Your task to perform on an android device: Find coffee shops on Maps Image 0: 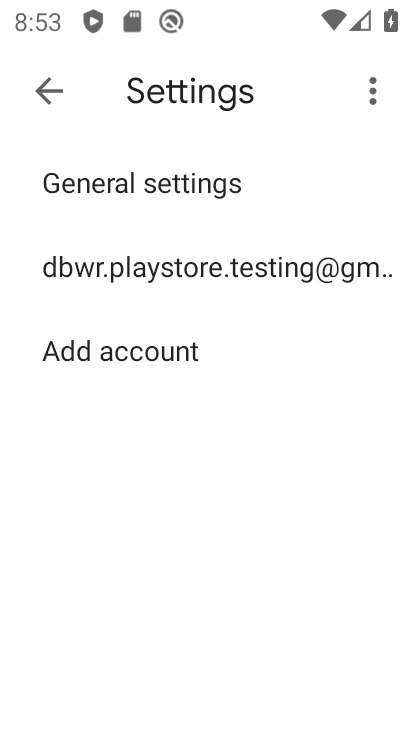
Step 0: press back button
Your task to perform on an android device: Find coffee shops on Maps Image 1: 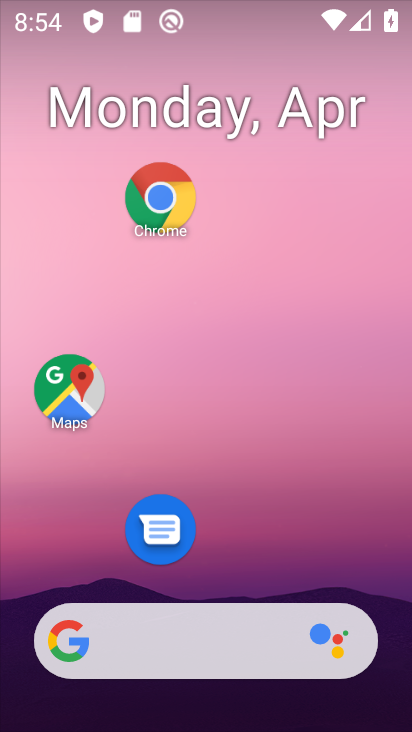
Step 1: click (59, 391)
Your task to perform on an android device: Find coffee shops on Maps Image 2: 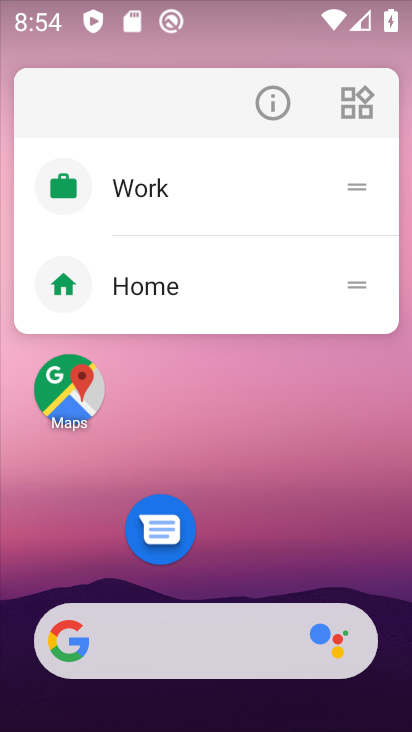
Step 2: click (67, 384)
Your task to perform on an android device: Find coffee shops on Maps Image 3: 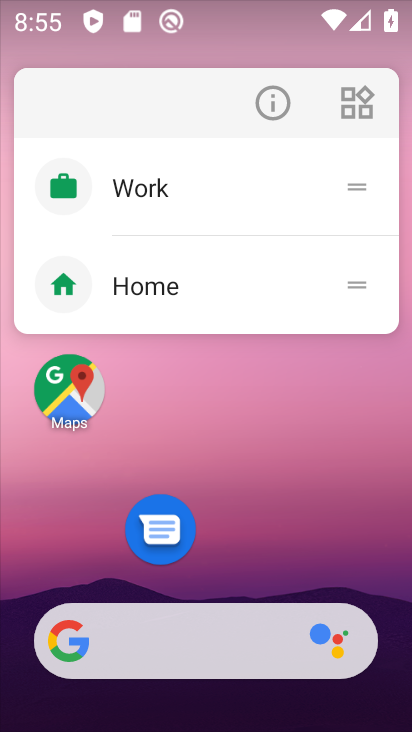
Step 3: click (60, 381)
Your task to perform on an android device: Find coffee shops on Maps Image 4: 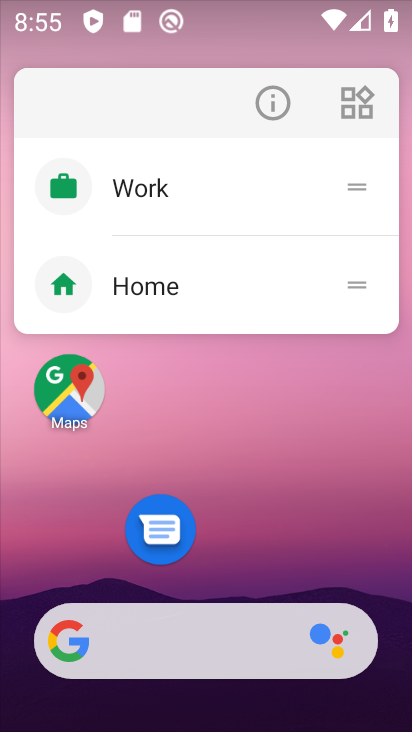
Step 4: click (62, 383)
Your task to perform on an android device: Find coffee shops on Maps Image 5: 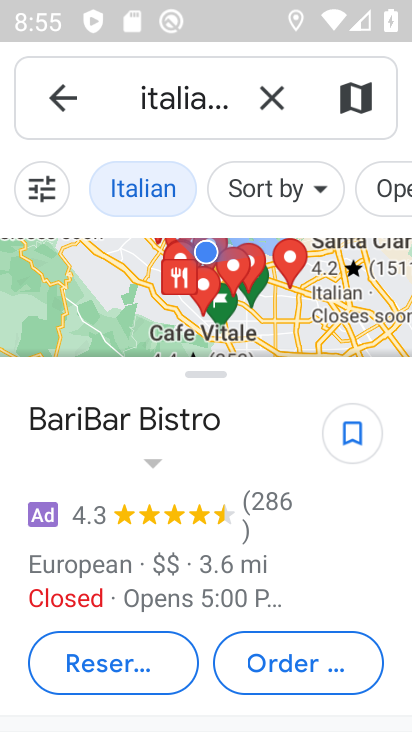
Step 5: click (260, 95)
Your task to perform on an android device: Find coffee shops on Maps Image 6: 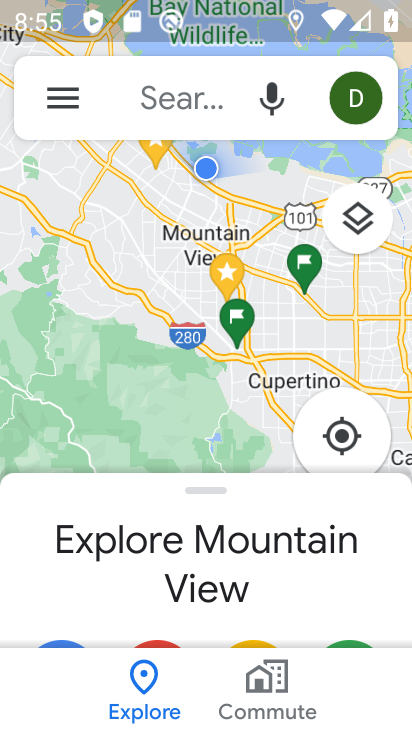
Step 6: click (164, 110)
Your task to perform on an android device: Find coffee shops on Maps Image 7: 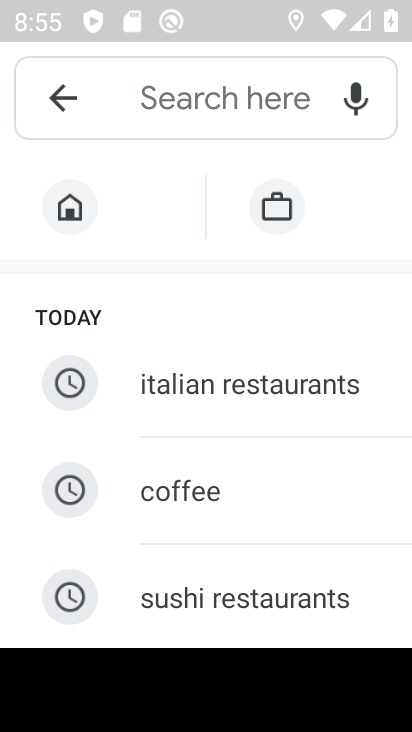
Step 7: click (212, 483)
Your task to perform on an android device: Find coffee shops on Maps Image 8: 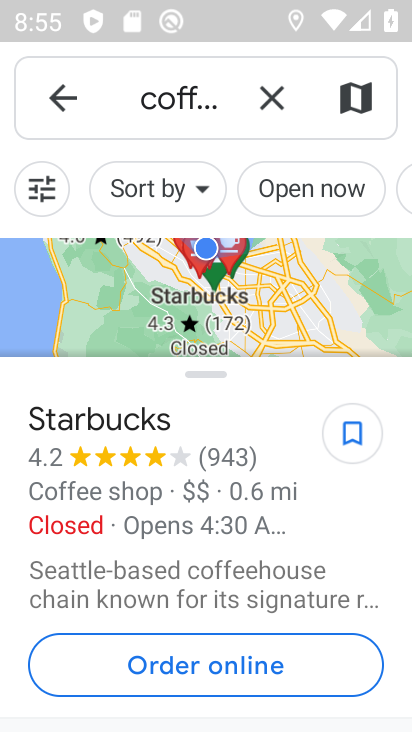
Step 8: task complete